Your task to perform on an android device: turn off smart reply in the gmail app Image 0: 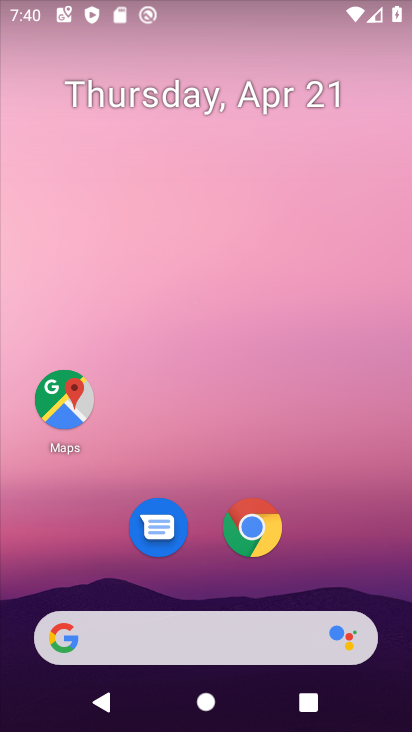
Step 0: drag from (273, 648) to (273, 141)
Your task to perform on an android device: turn off smart reply in the gmail app Image 1: 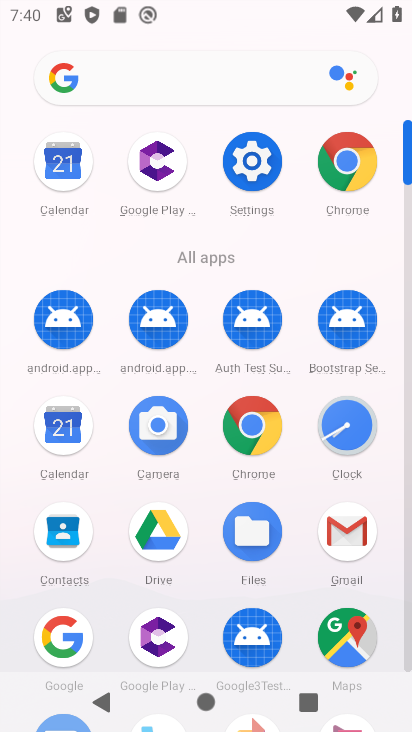
Step 1: click (361, 533)
Your task to perform on an android device: turn off smart reply in the gmail app Image 2: 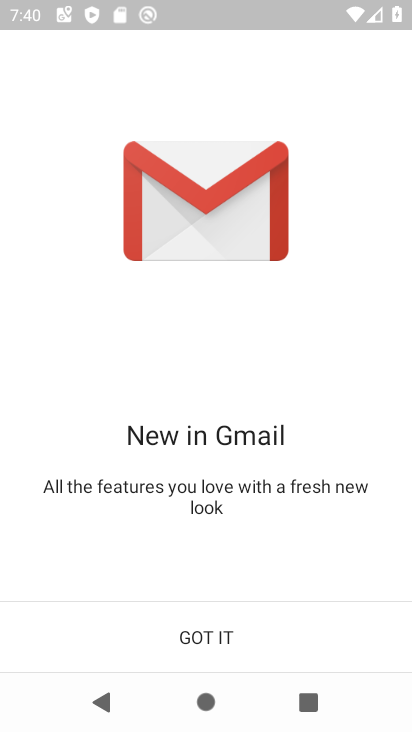
Step 2: click (267, 669)
Your task to perform on an android device: turn off smart reply in the gmail app Image 3: 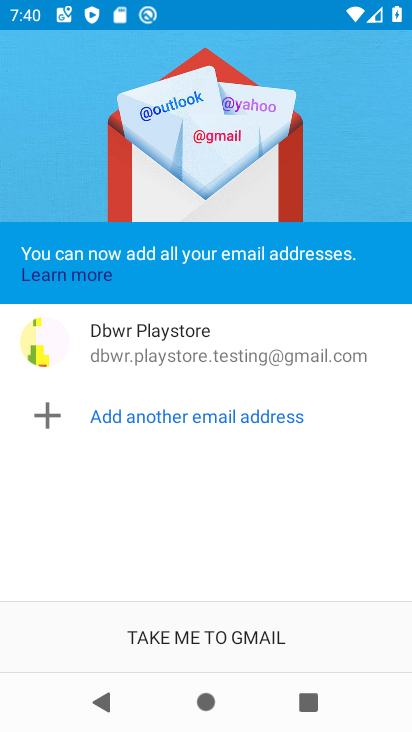
Step 3: click (242, 637)
Your task to perform on an android device: turn off smart reply in the gmail app Image 4: 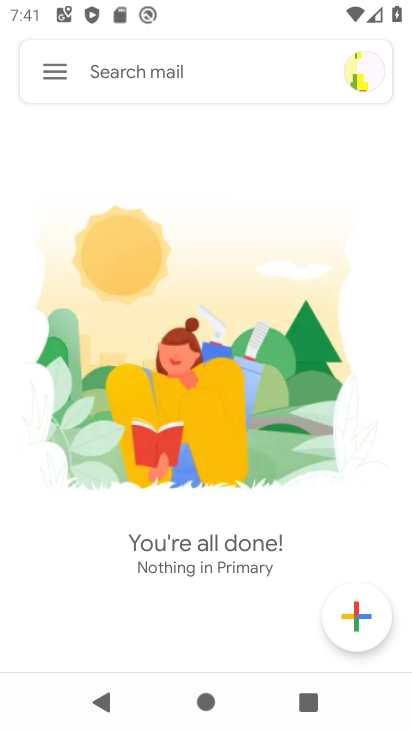
Step 4: click (61, 82)
Your task to perform on an android device: turn off smart reply in the gmail app Image 5: 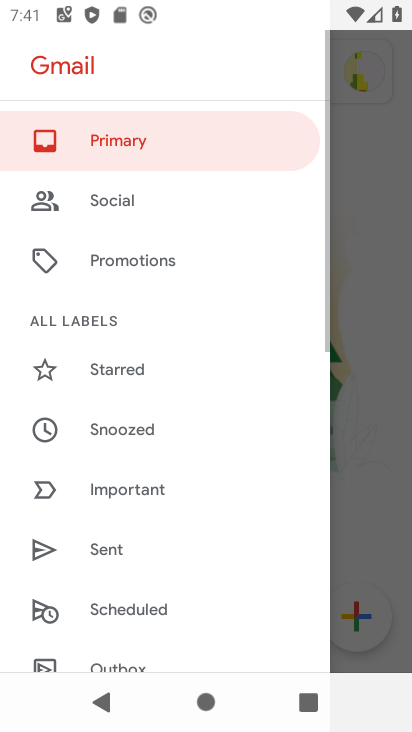
Step 5: drag from (129, 513) to (196, 169)
Your task to perform on an android device: turn off smart reply in the gmail app Image 6: 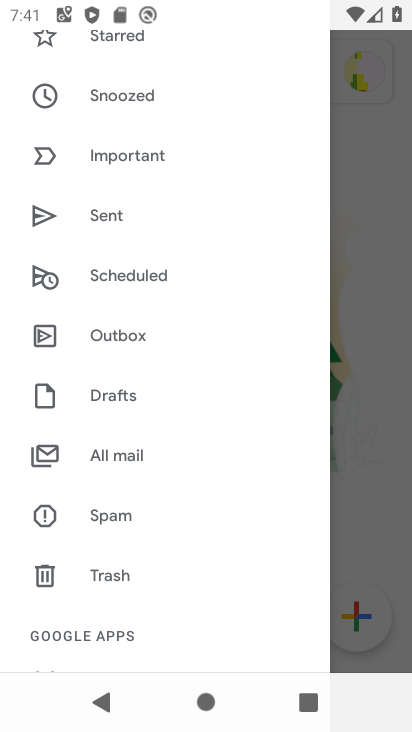
Step 6: drag from (167, 533) to (219, 102)
Your task to perform on an android device: turn off smart reply in the gmail app Image 7: 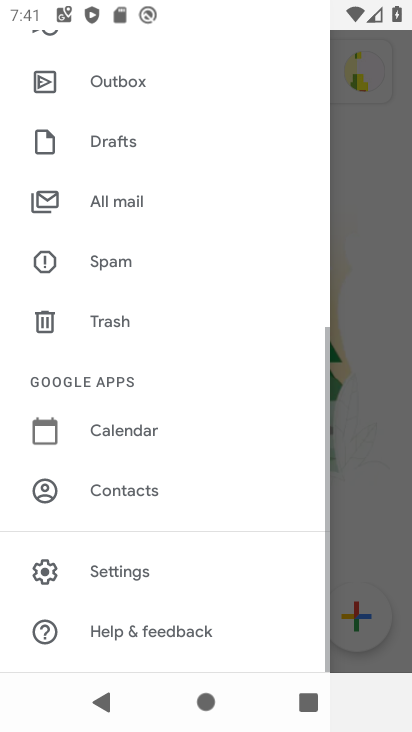
Step 7: click (147, 576)
Your task to perform on an android device: turn off smart reply in the gmail app Image 8: 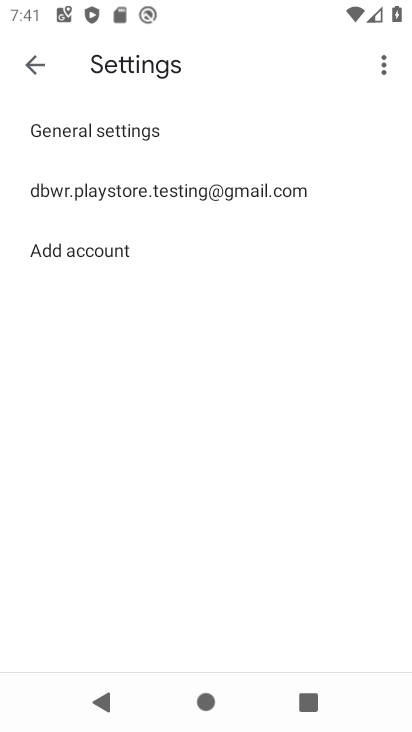
Step 8: click (270, 204)
Your task to perform on an android device: turn off smart reply in the gmail app Image 9: 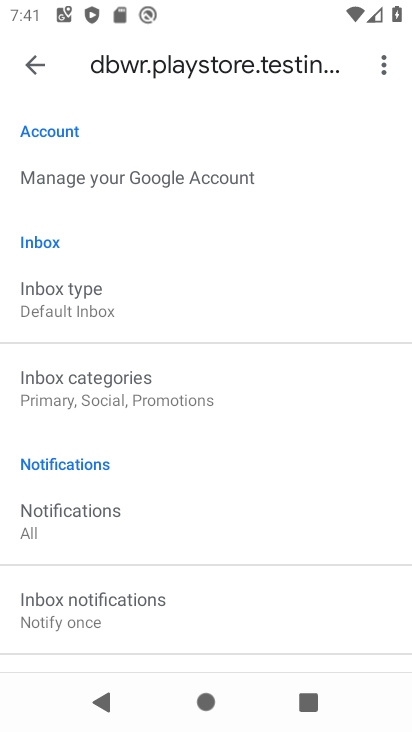
Step 9: drag from (185, 578) to (172, 27)
Your task to perform on an android device: turn off smart reply in the gmail app Image 10: 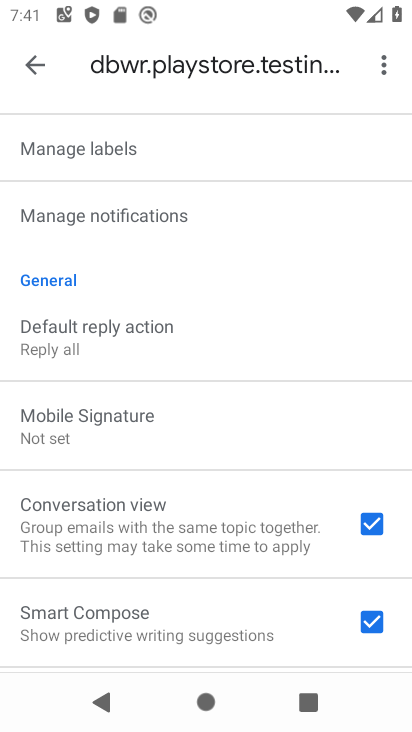
Step 10: drag from (222, 595) to (281, 40)
Your task to perform on an android device: turn off smart reply in the gmail app Image 11: 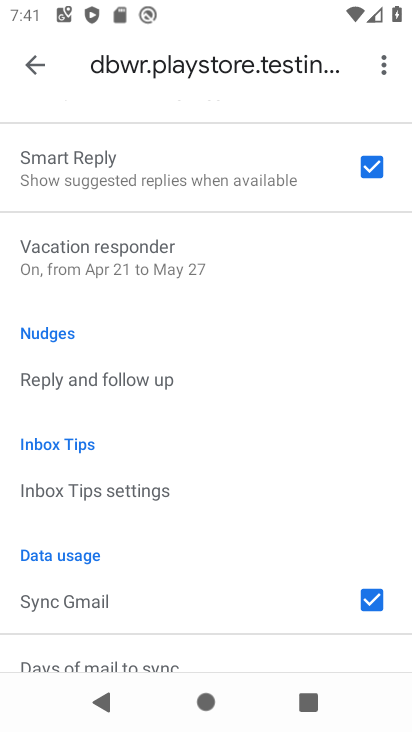
Step 11: click (380, 167)
Your task to perform on an android device: turn off smart reply in the gmail app Image 12: 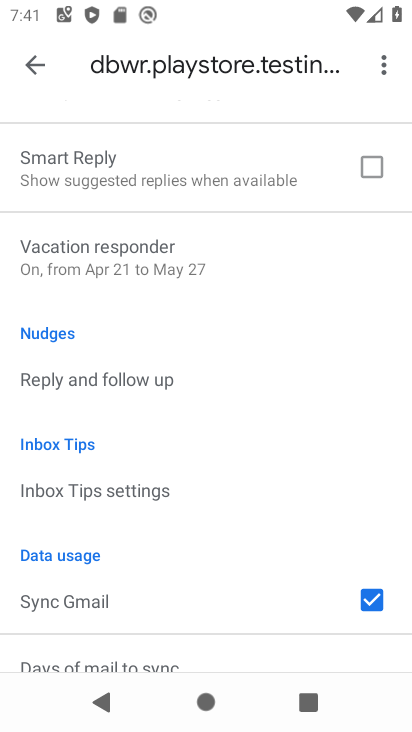
Step 12: task complete